Your task to perform on an android device: turn off javascript in the chrome app Image 0: 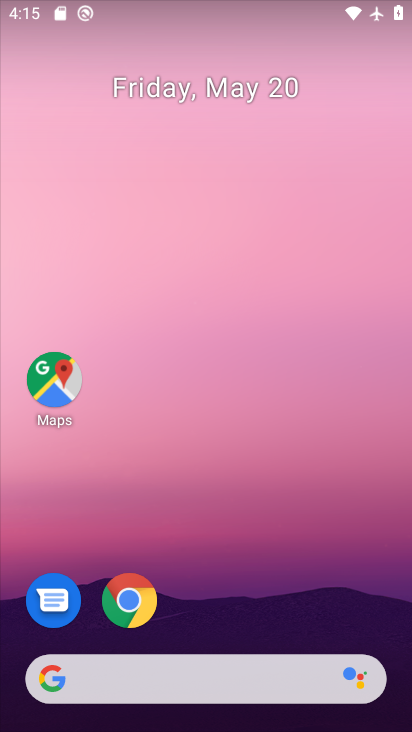
Step 0: click (139, 593)
Your task to perform on an android device: turn off javascript in the chrome app Image 1: 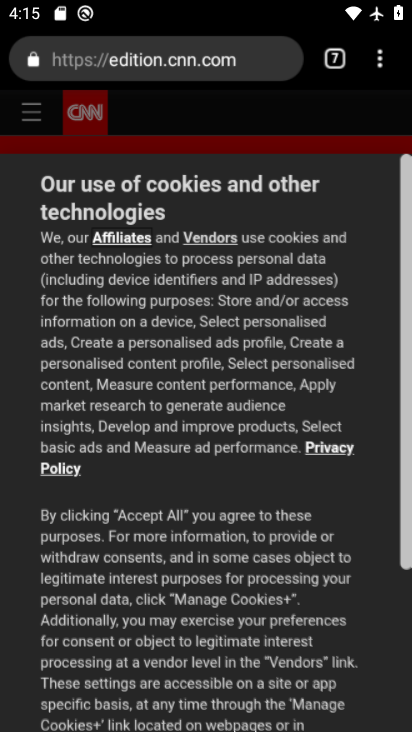
Step 1: click (376, 62)
Your task to perform on an android device: turn off javascript in the chrome app Image 2: 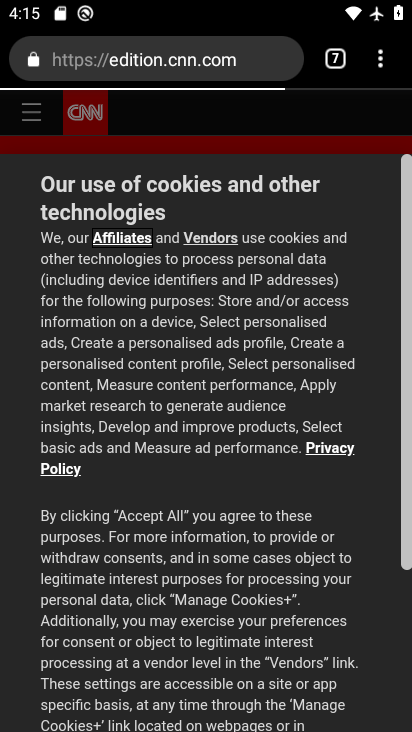
Step 2: click (375, 44)
Your task to perform on an android device: turn off javascript in the chrome app Image 3: 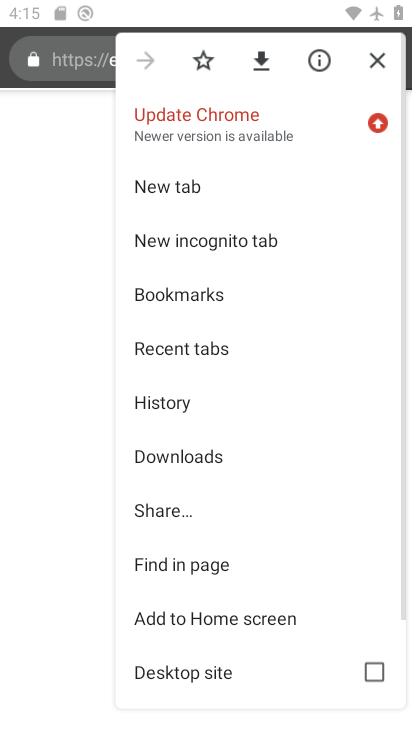
Step 3: drag from (233, 557) to (233, 188)
Your task to perform on an android device: turn off javascript in the chrome app Image 4: 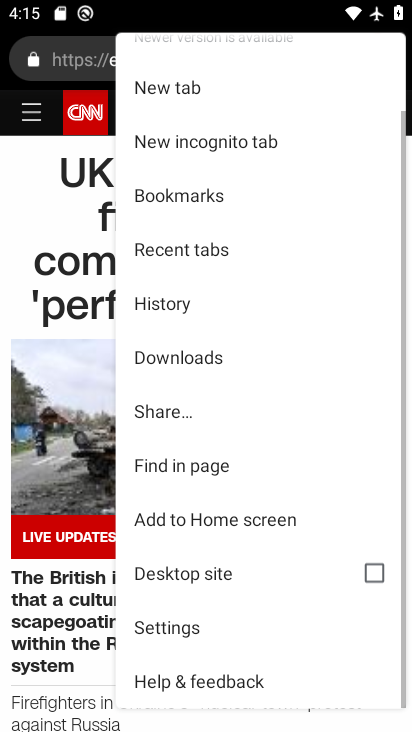
Step 4: click (207, 633)
Your task to perform on an android device: turn off javascript in the chrome app Image 5: 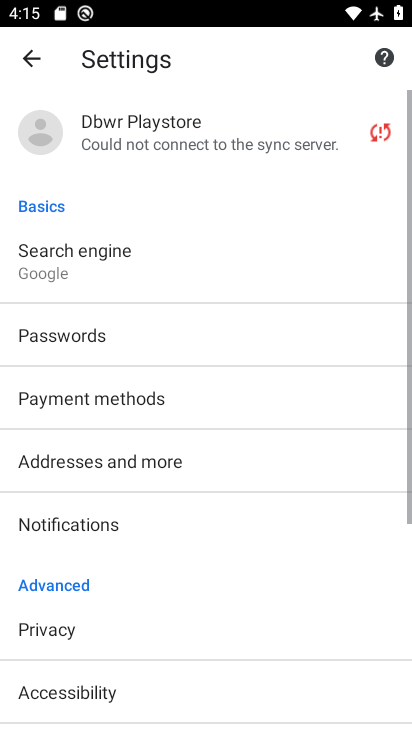
Step 5: drag from (223, 599) to (196, 133)
Your task to perform on an android device: turn off javascript in the chrome app Image 6: 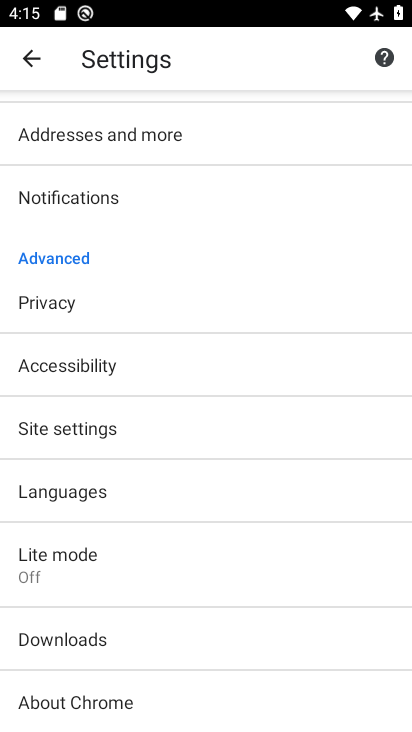
Step 6: click (163, 425)
Your task to perform on an android device: turn off javascript in the chrome app Image 7: 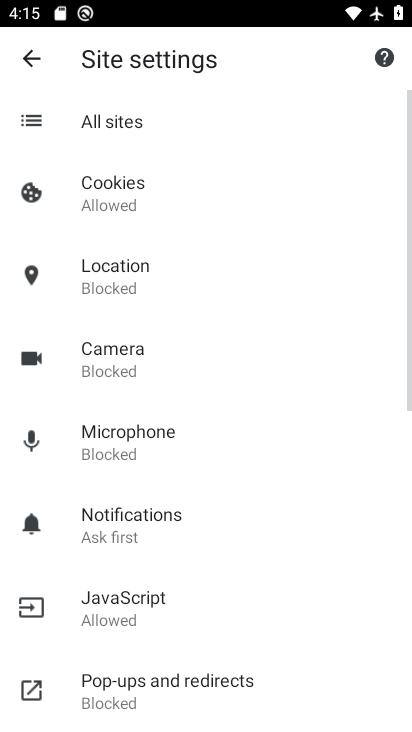
Step 7: click (205, 591)
Your task to perform on an android device: turn off javascript in the chrome app Image 8: 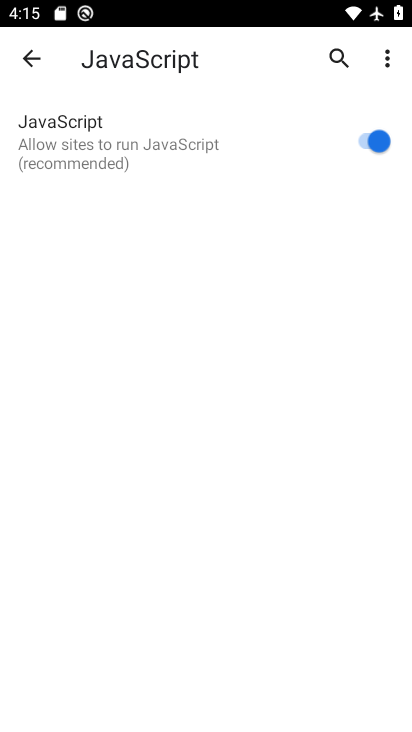
Step 8: click (371, 129)
Your task to perform on an android device: turn off javascript in the chrome app Image 9: 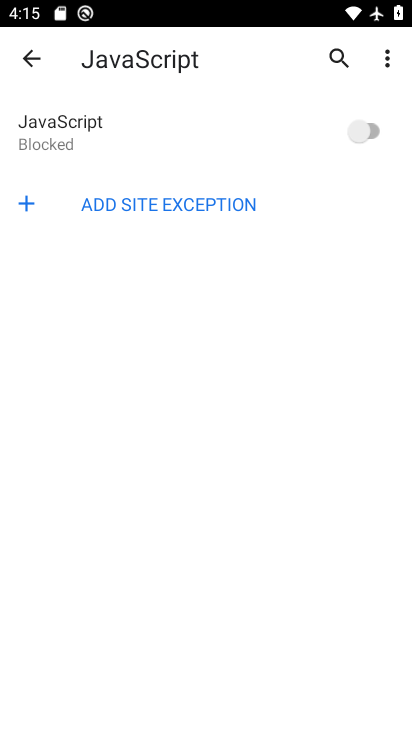
Step 9: task complete